Your task to perform on an android device: Open battery settings Image 0: 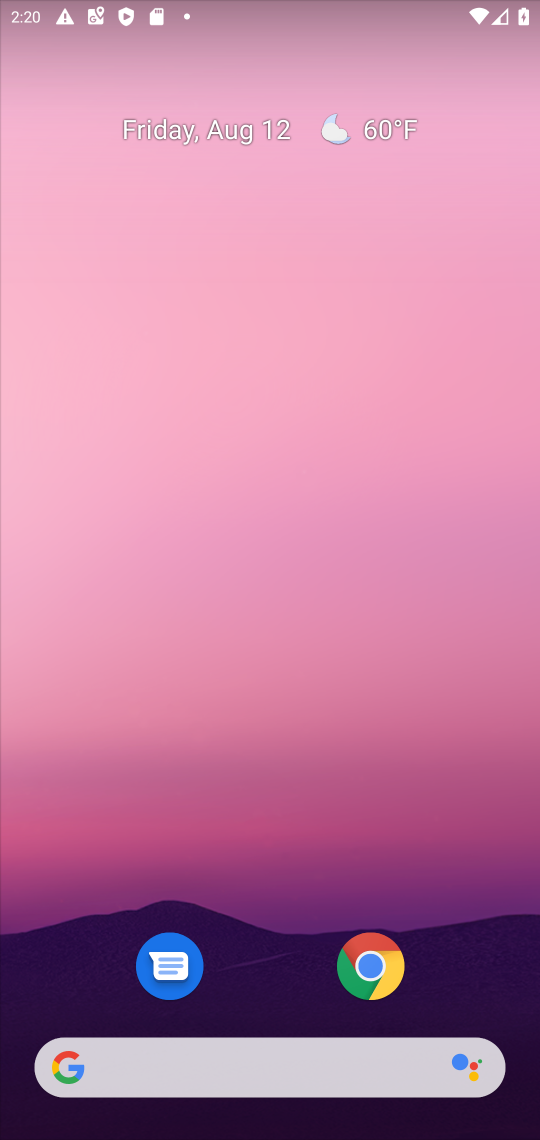
Step 0: drag from (366, 819) to (307, 107)
Your task to perform on an android device: Open battery settings Image 1: 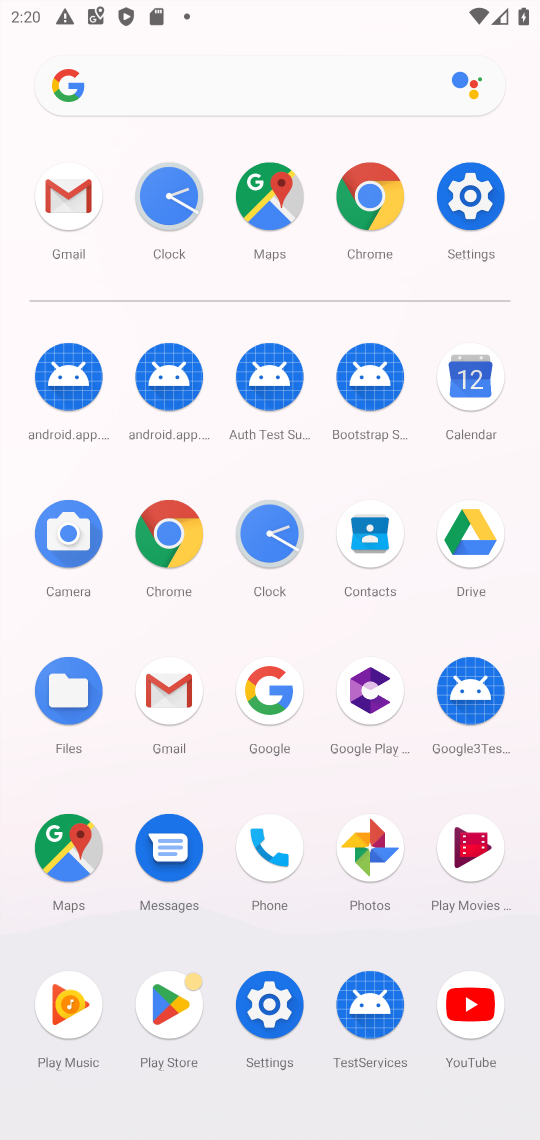
Step 1: click (271, 997)
Your task to perform on an android device: Open battery settings Image 2: 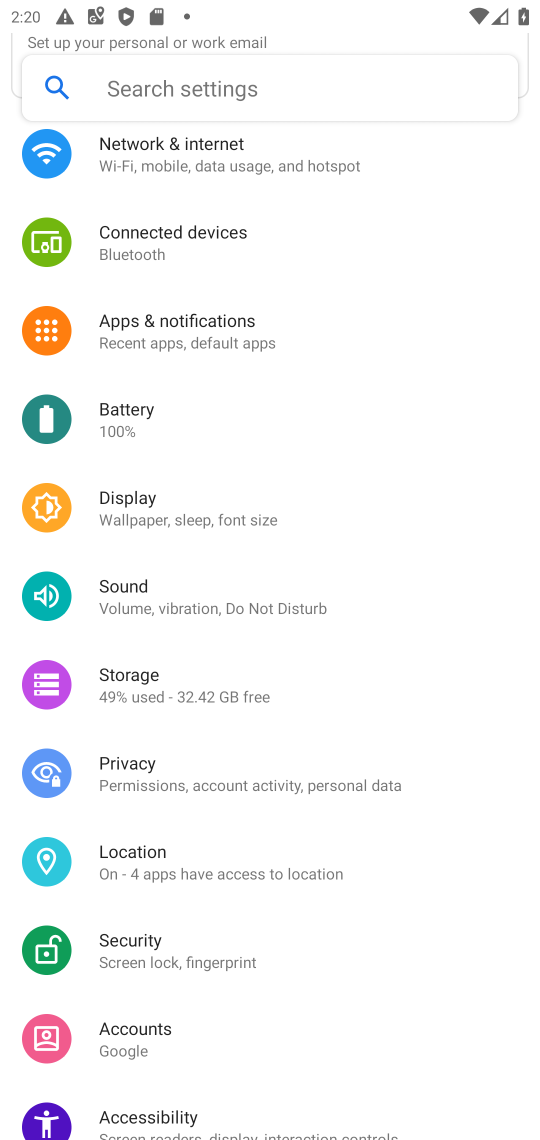
Step 2: click (110, 410)
Your task to perform on an android device: Open battery settings Image 3: 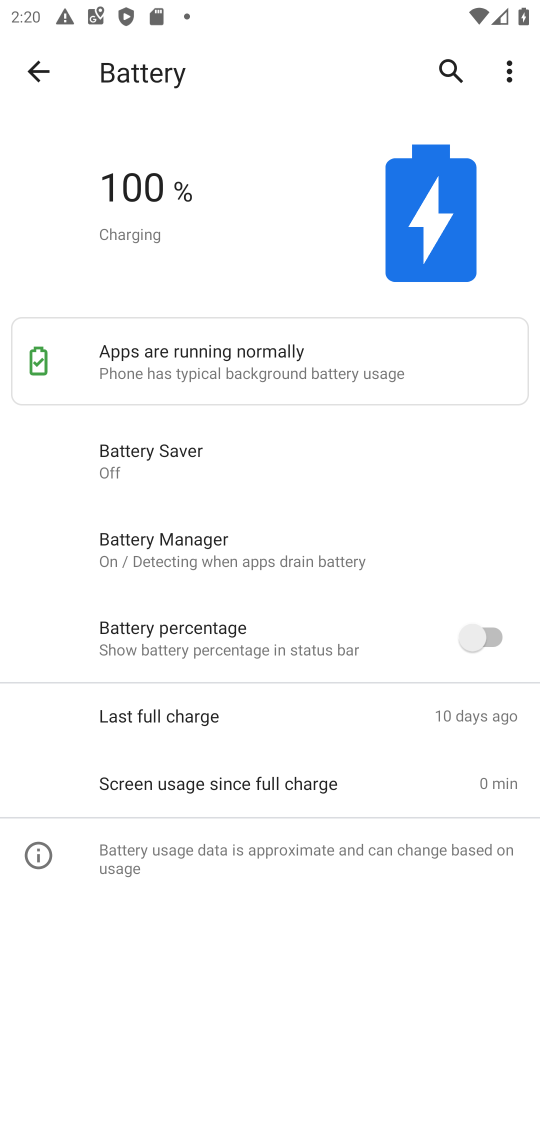
Step 3: task complete